Your task to perform on an android device: Is it going to rain this weekend? Image 0: 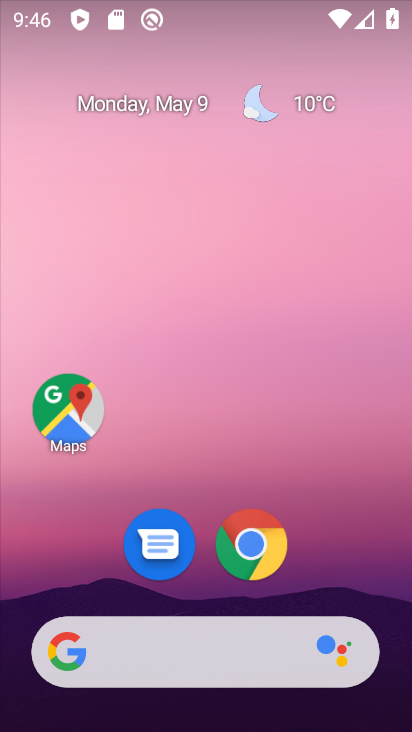
Step 0: click (305, 101)
Your task to perform on an android device: Is it going to rain this weekend? Image 1: 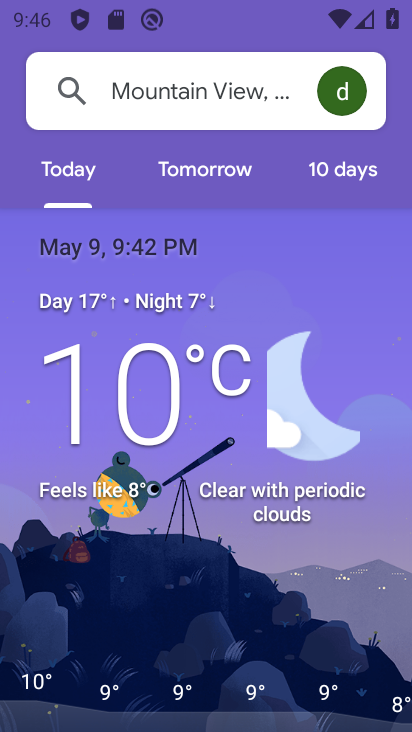
Step 1: task complete